Your task to perform on an android device: Go to privacy settings Image 0: 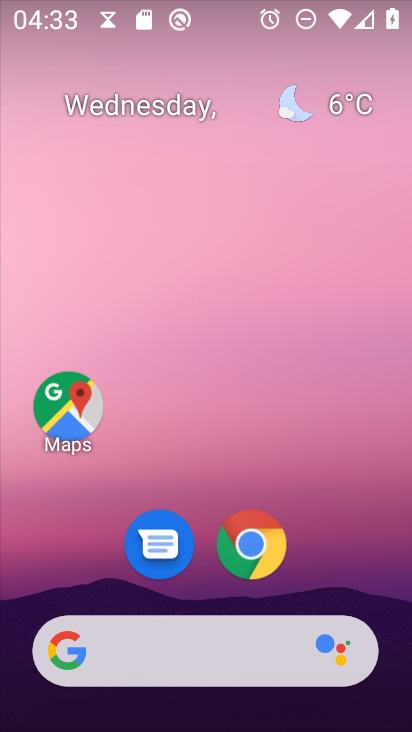
Step 0: drag from (311, 597) to (299, 46)
Your task to perform on an android device: Go to privacy settings Image 1: 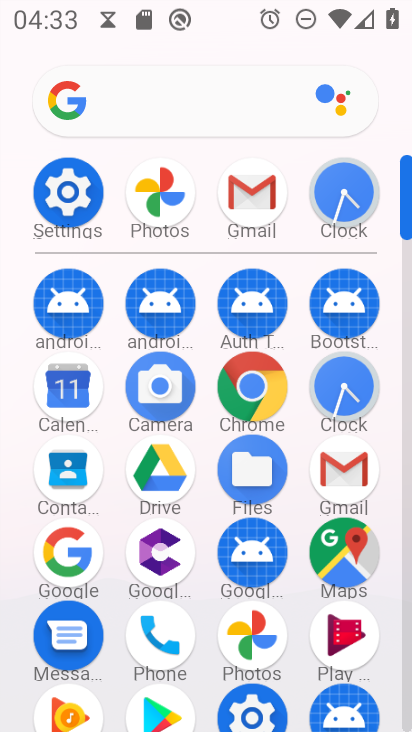
Step 1: click (67, 182)
Your task to perform on an android device: Go to privacy settings Image 2: 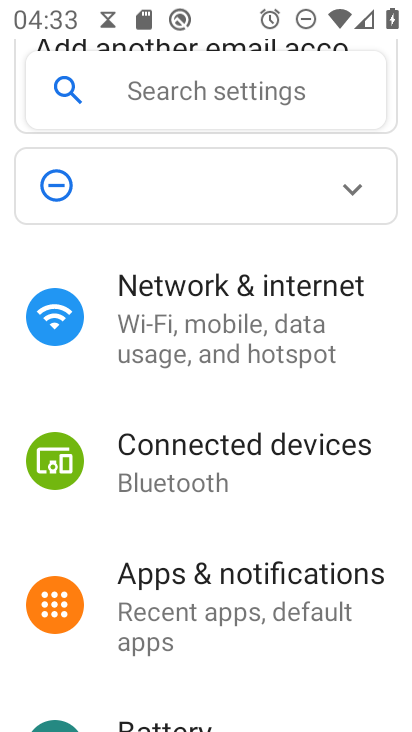
Step 2: drag from (136, 622) to (149, 445)
Your task to perform on an android device: Go to privacy settings Image 3: 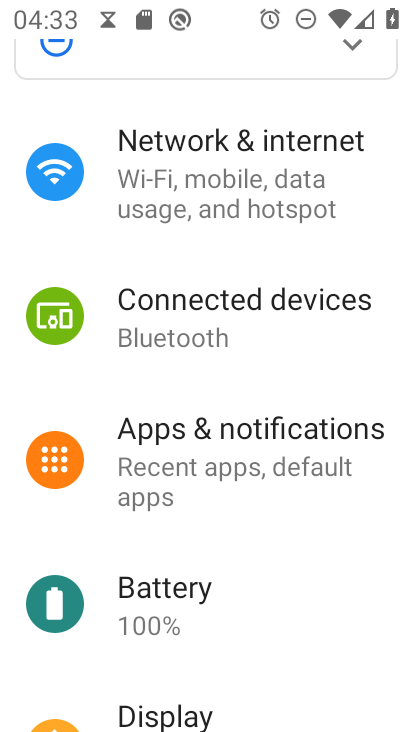
Step 3: drag from (194, 648) to (279, 286)
Your task to perform on an android device: Go to privacy settings Image 4: 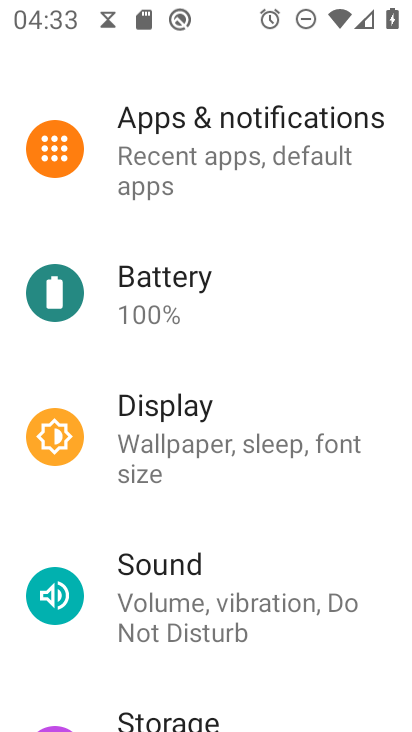
Step 4: drag from (166, 630) to (172, 364)
Your task to perform on an android device: Go to privacy settings Image 5: 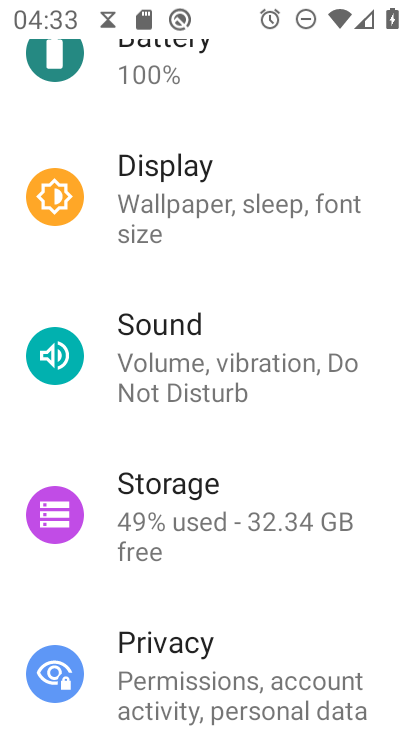
Step 5: click (180, 659)
Your task to perform on an android device: Go to privacy settings Image 6: 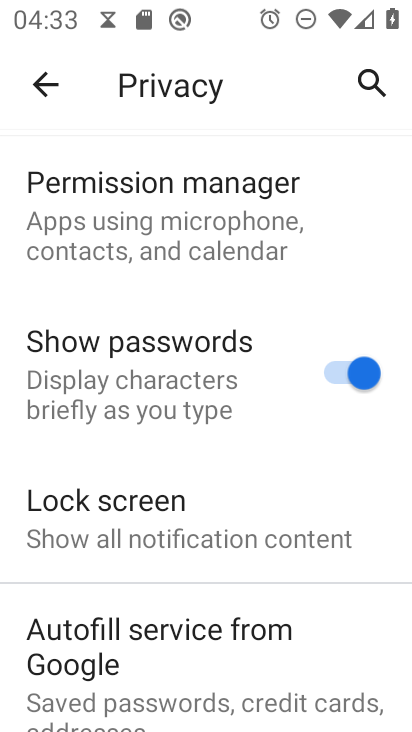
Step 6: task complete